Your task to perform on an android device: Search for sushi restaurants on Maps Image 0: 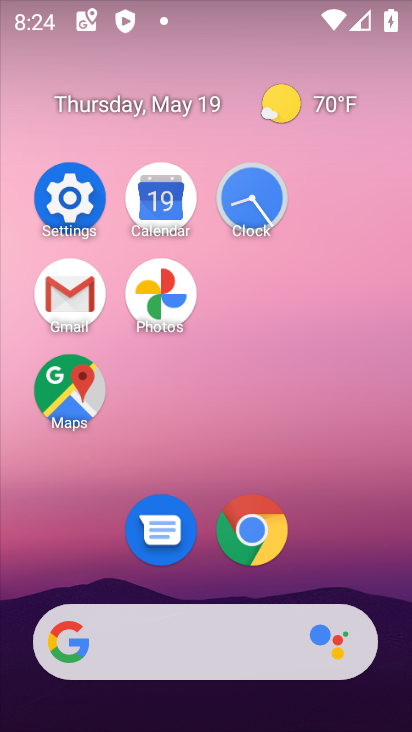
Step 0: click (53, 394)
Your task to perform on an android device: Search for sushi restaurants on Maps Image 1: 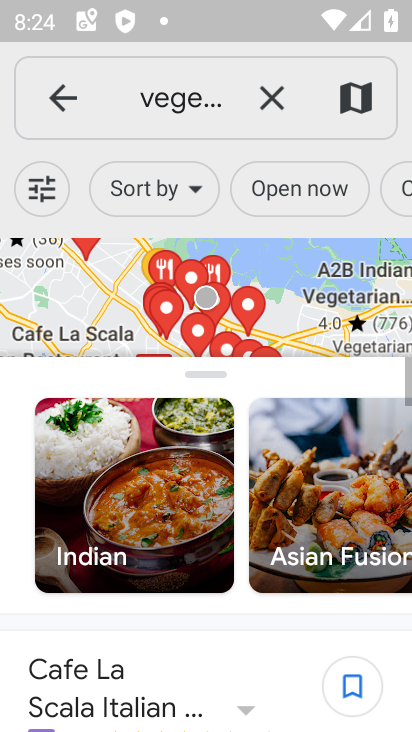
Step 1: click (280, 108)
Your task to perform on an android device: Search for sushi restaurants on Maps Image 2: 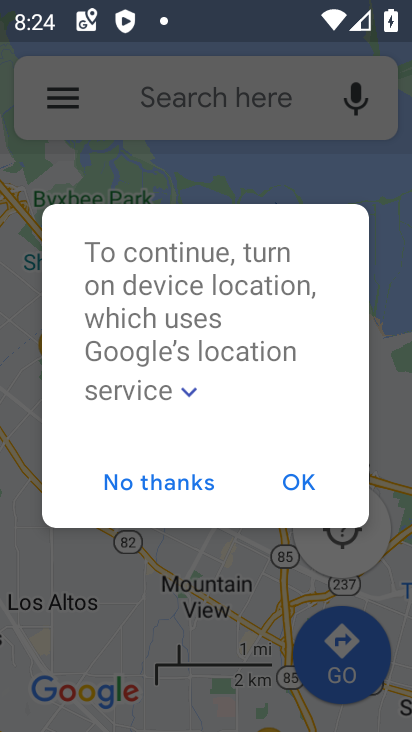
Step 2: click (306, 494)
Your task to perform on an android device: Search for sushi restaurants on Maps Image 3: 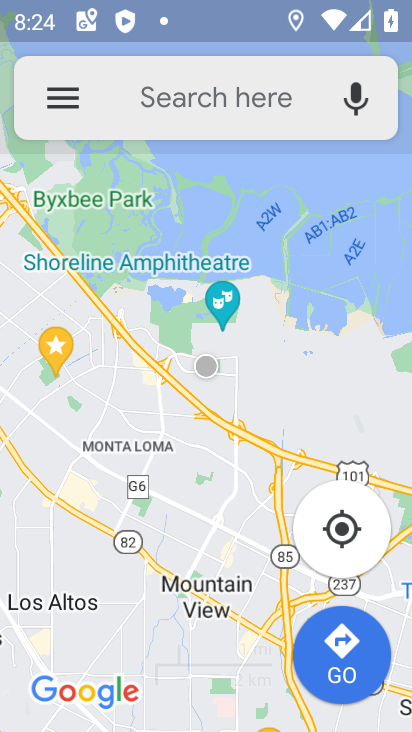
Step 3: click (201, 101)
Your task to perform on an android device: Search for sushi restaurants on Maps Image 4: 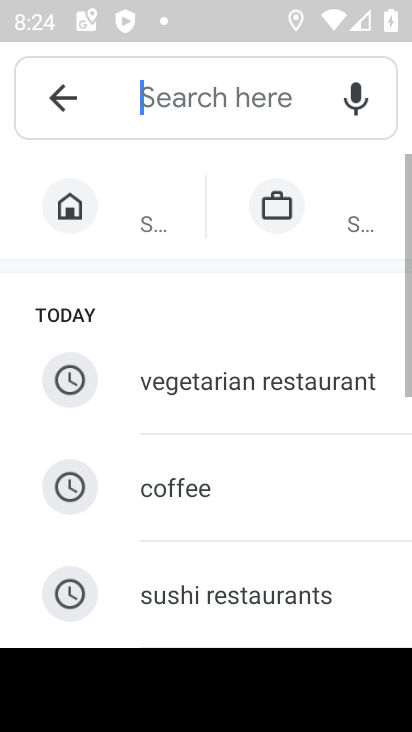
Step 4: drag from (281, 516) to (282, 137)
Your task to perform on an android device: Search for sushi restaurants on Maps Image 5: 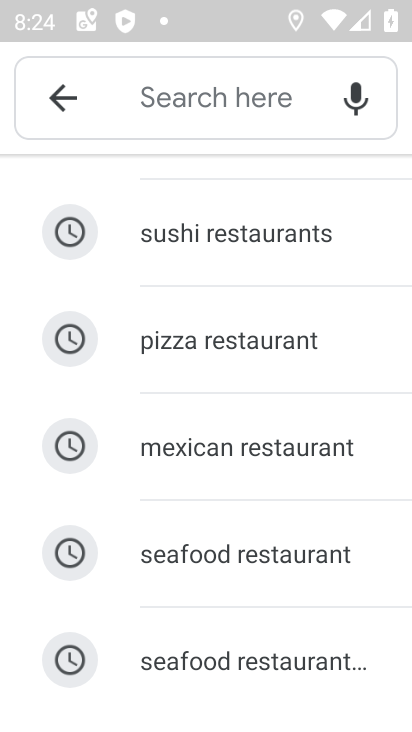
Step 5: click (287, 245)
Your task to perform on an android device: Search for sushi restaurants on Maps Image 6: 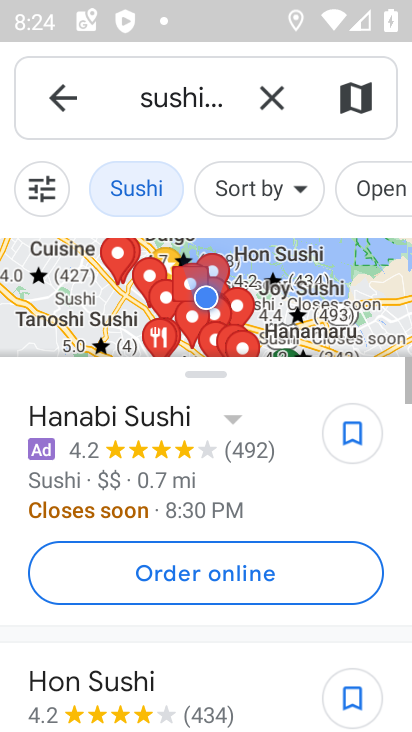
Step 6: task complete